Your task to perform on an android device: toggle sleep mode Image 0: 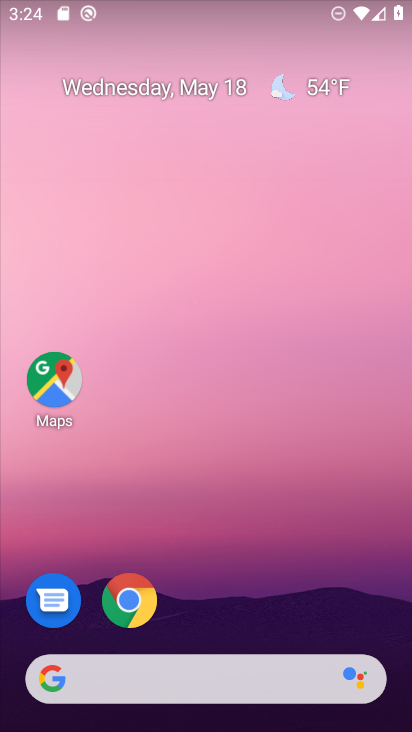
Step 0: drag from (233, 616) to (316, 99)
Your task to perform on an android device: toggle sleep mode Image 1: 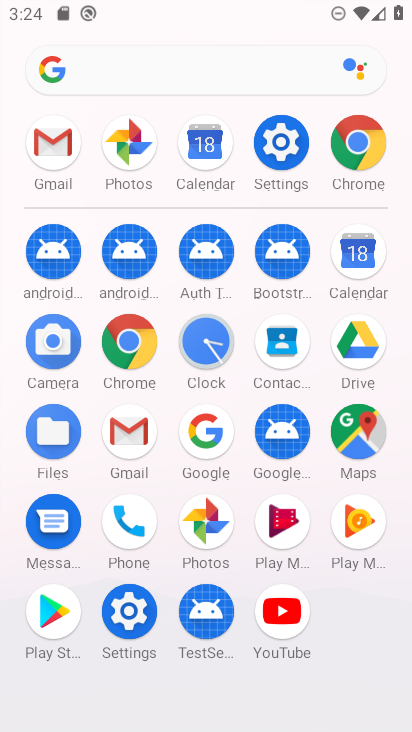
Step 1: click (134, 623)
Your task to perform on an android device: toggle sleep mode Image 2: 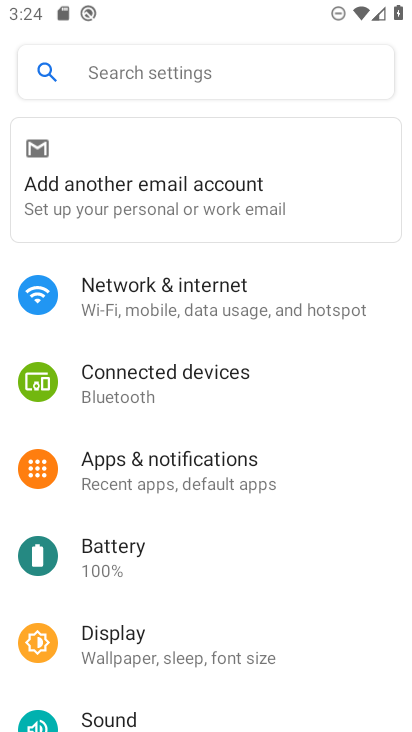
Step 2: click (198, 75)
Your task to perform on an android device: toggle sleep mode Image 3: 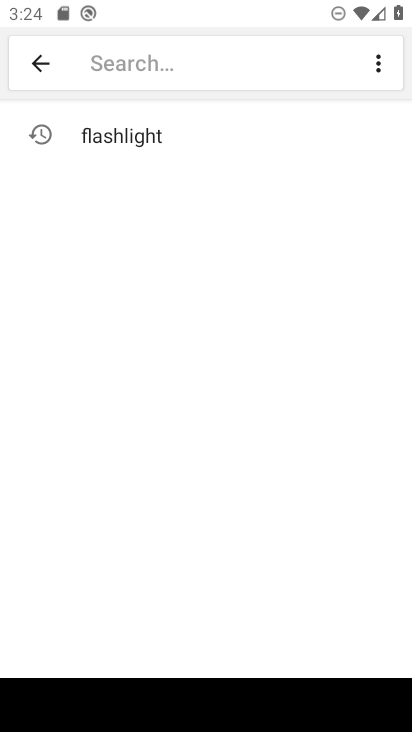
Step 3: type "sleep mode"
Your task to perform on an android device: toggle sleep mode Image 4: 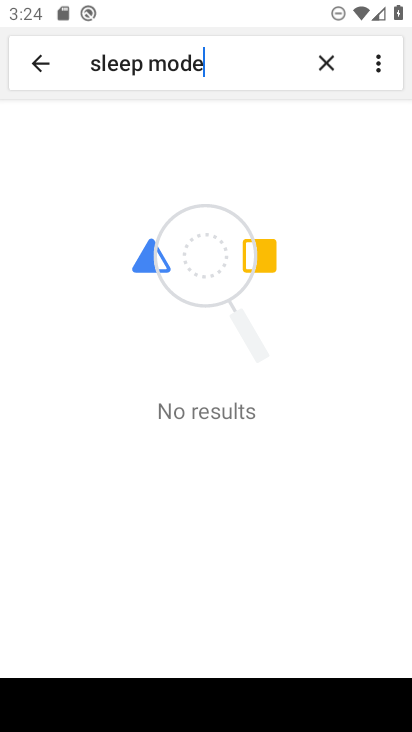
Step 4: click (183, 268)
Your task to perform on an android device: toggle sleep mode Image 5: 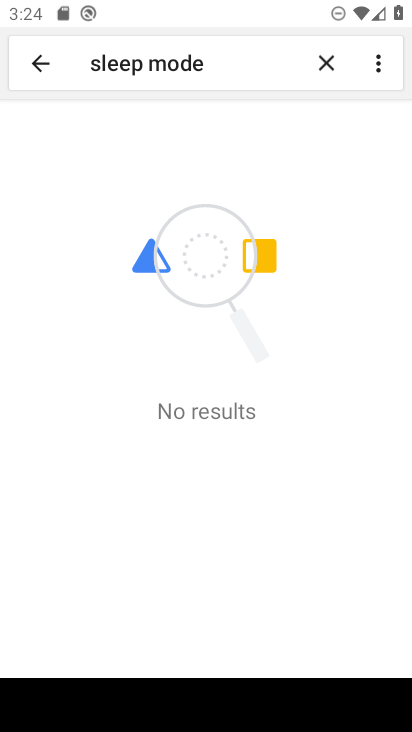
Step 5: task complete